Your task to perform on an android device: turn pop-ups on in chrome Image 0: 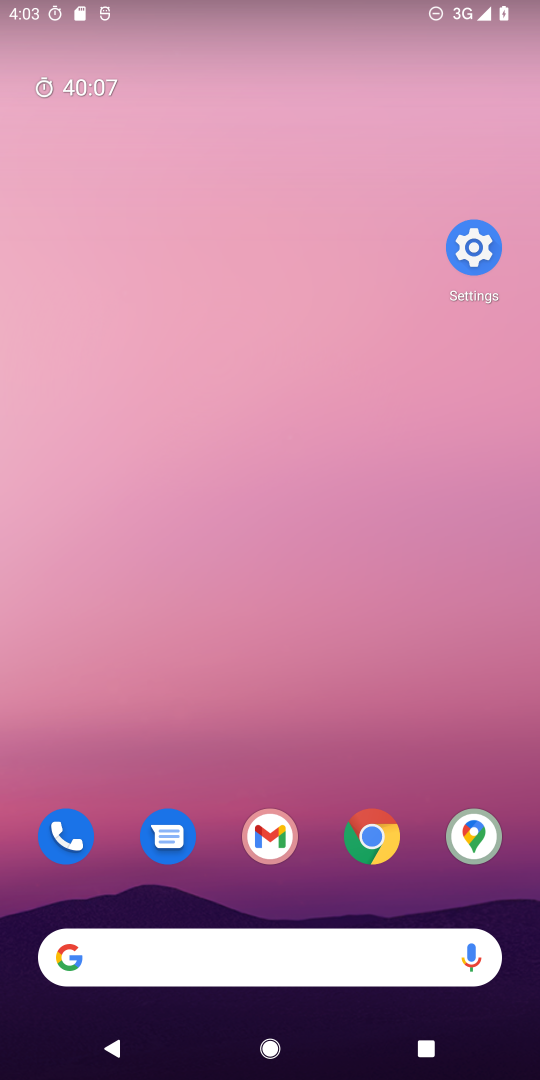
Step 0: click (371, 842)
Your task to perform on an android device: turn pop-ups on in chrome Image 1: 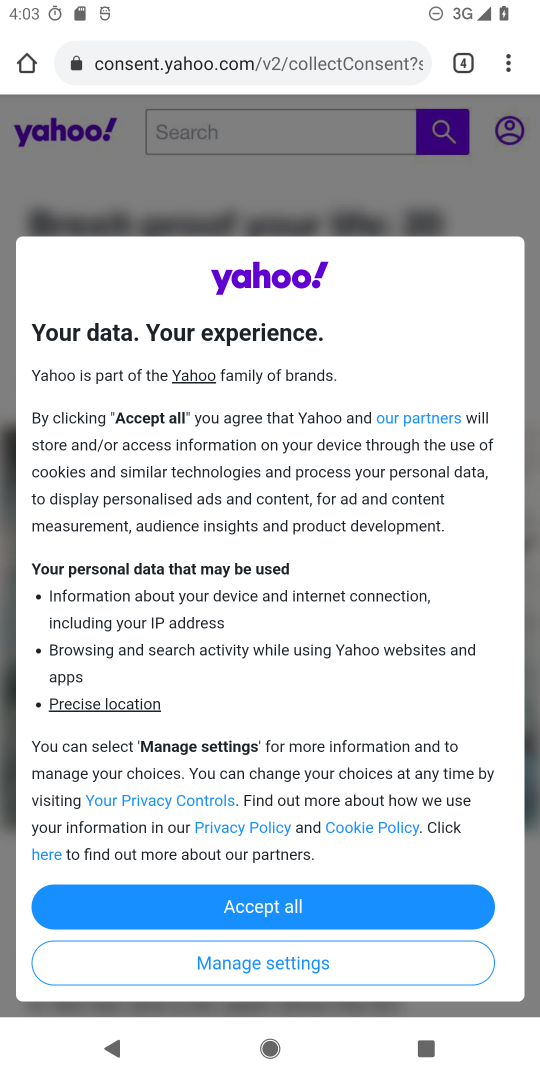
Step 1: click (507, 54)
Your task to perform on an android device: turn pop-ups on in chrome Image 2: 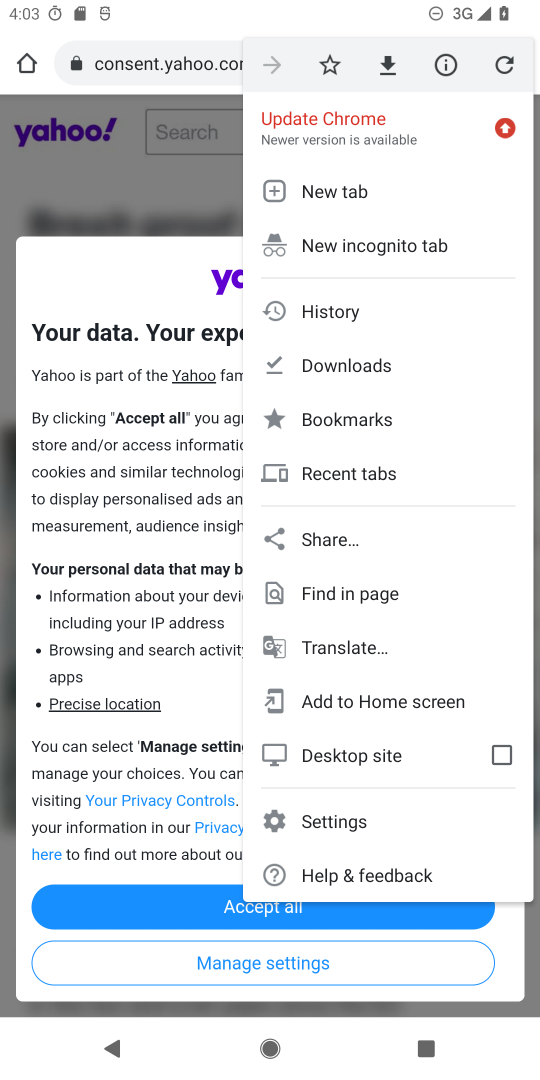
Step 2: click (341, 821)
Your task to perform on an android device: turn pop-ups on in chrome Image 3: 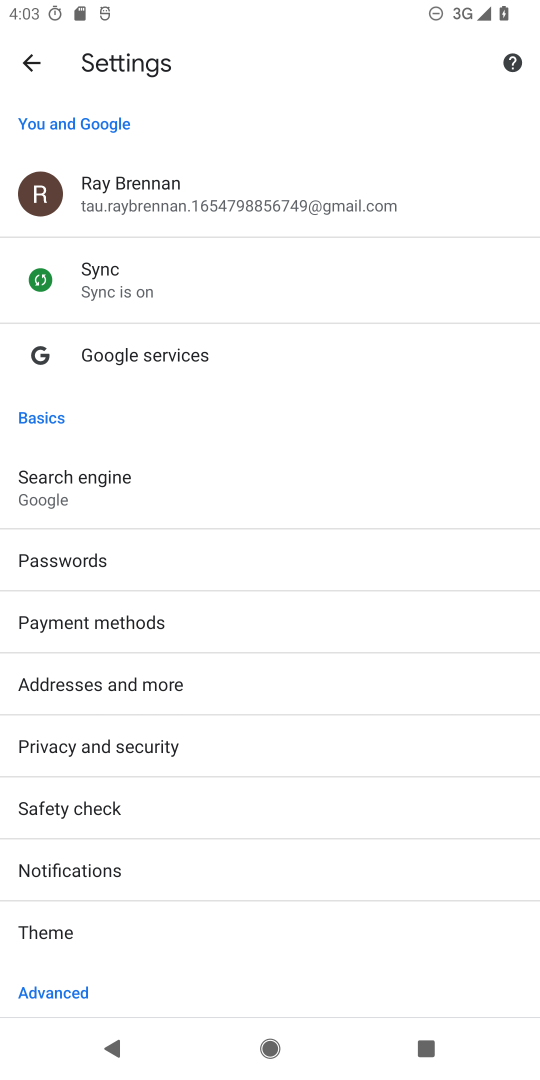
Step 3: drag from (103, 853) to (111, 598)
Your task to perform on an android device: turn pop-ups on in chrome Image 4: 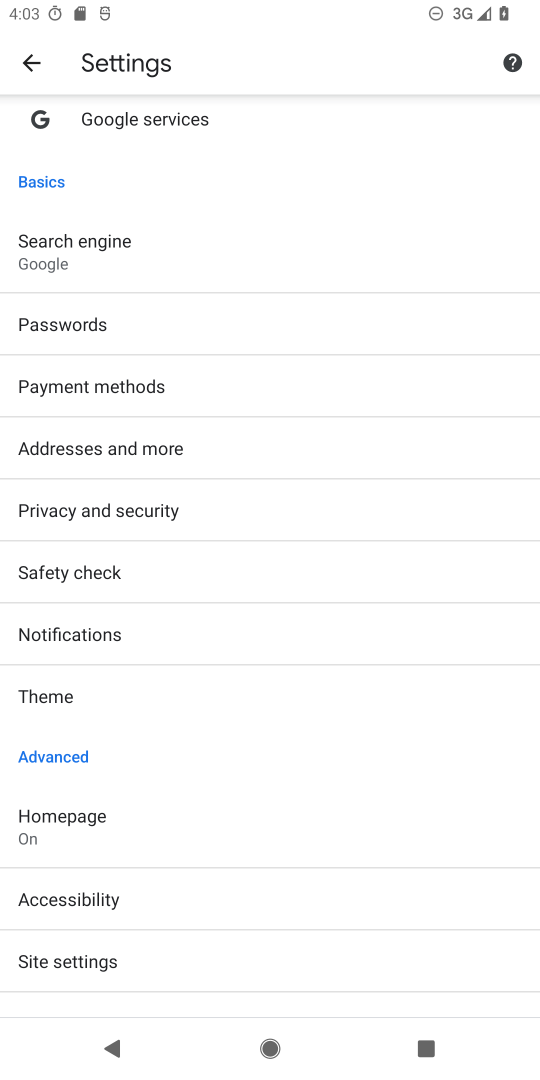
Step 4: drag from (103, 932) to (130, 674)
Your task to perform on an android device: turn pop-ups on in chrome Image 5: 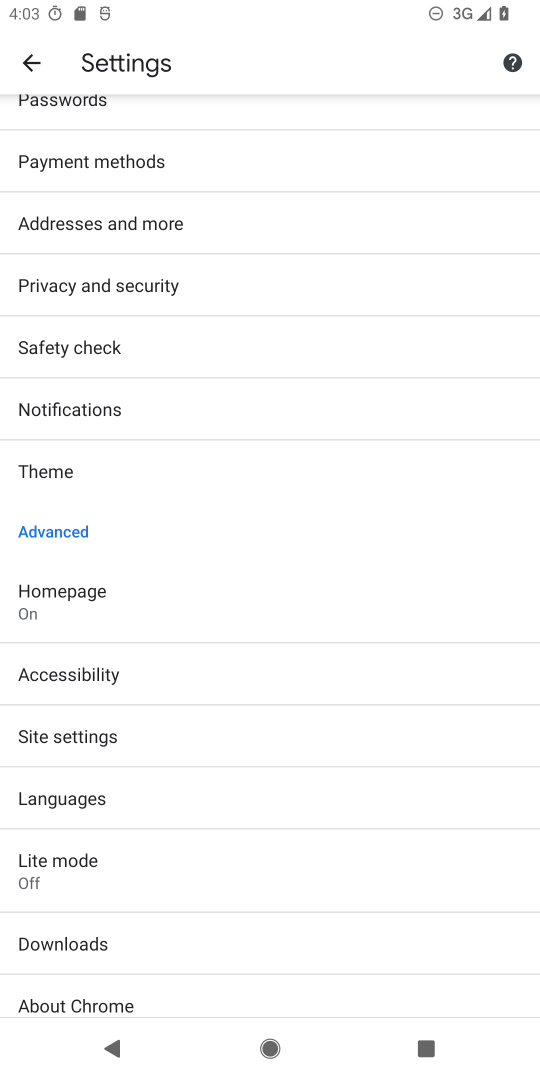
Step 5: click (92, 737)
Your task to perform on an android device: turn pop-ups on in chrome Image 6: 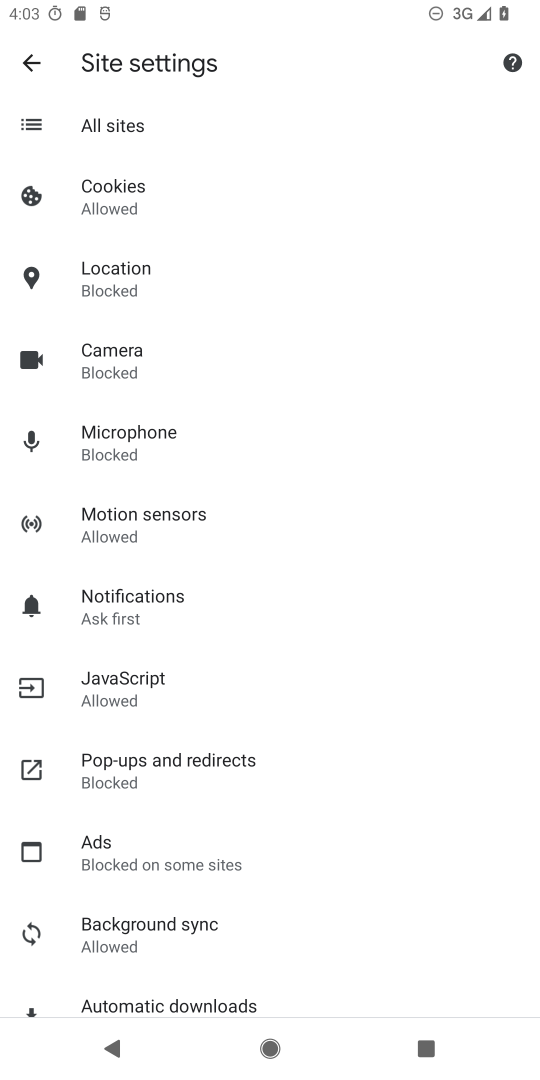
Step 6: click (121, 771)
Your task to perform on an android device: turn pop-ups on in chrome Image 7: 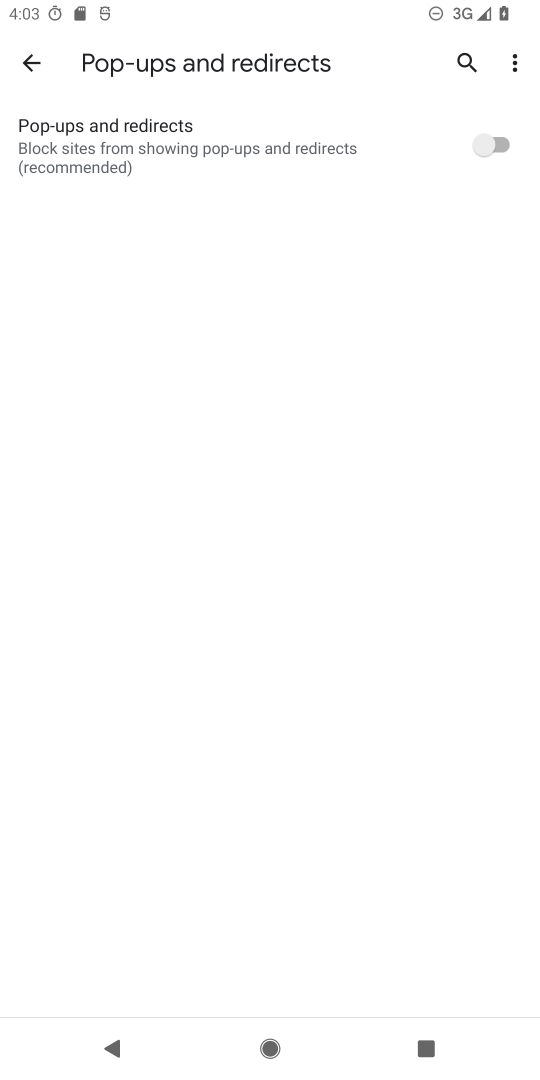
Step 7: click (481, 145)
Your task to perform on an android device: turn pop-ups on in chrome Image 8: 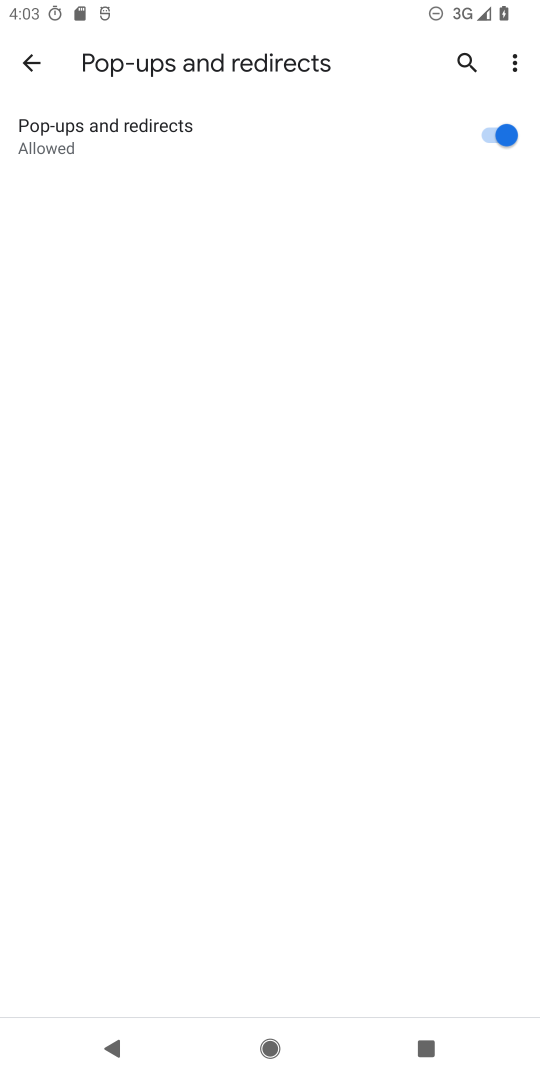
Step 8: task complete